Your task to perform on an android device: Go to CNN.com Image 0: 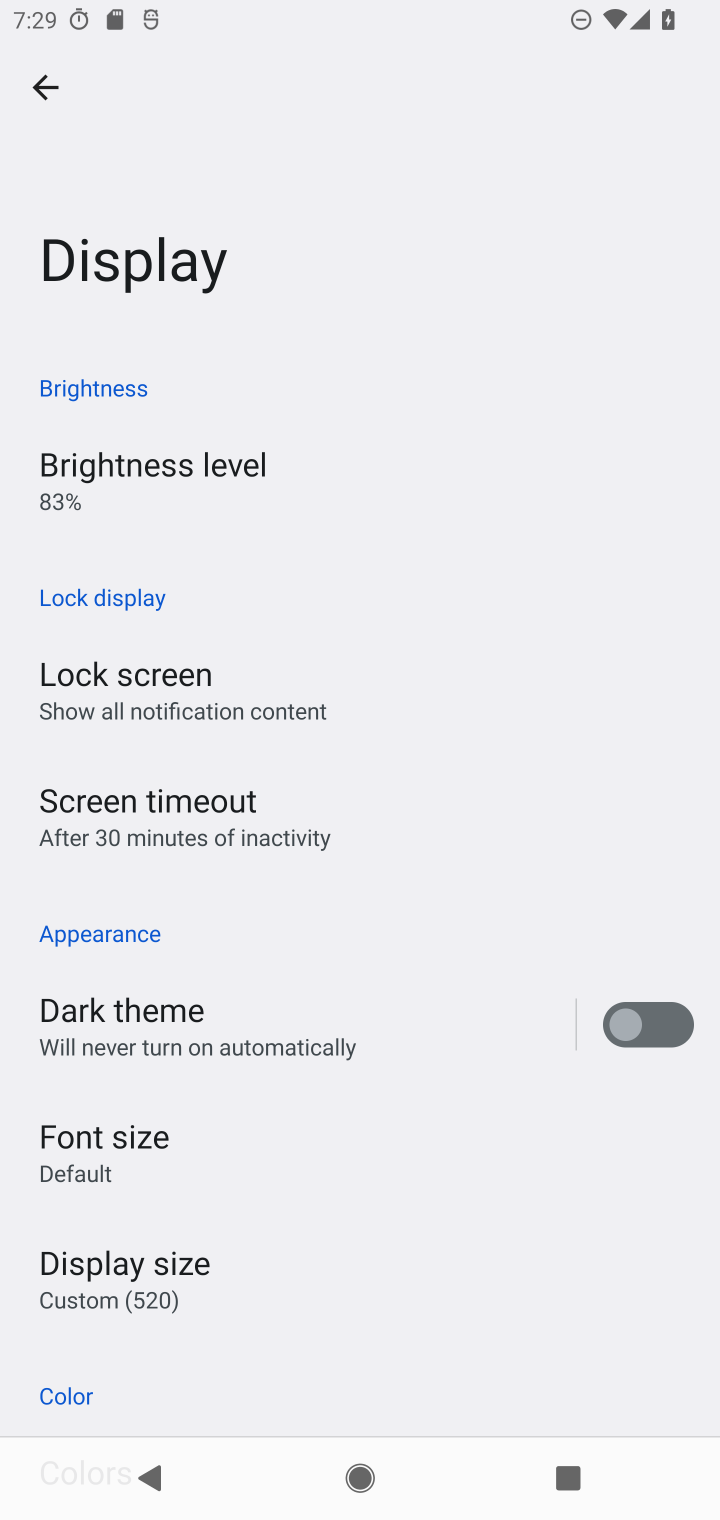
Step 0: press home button
Your task to perform on an android device: Go to CNN.com Image 1: 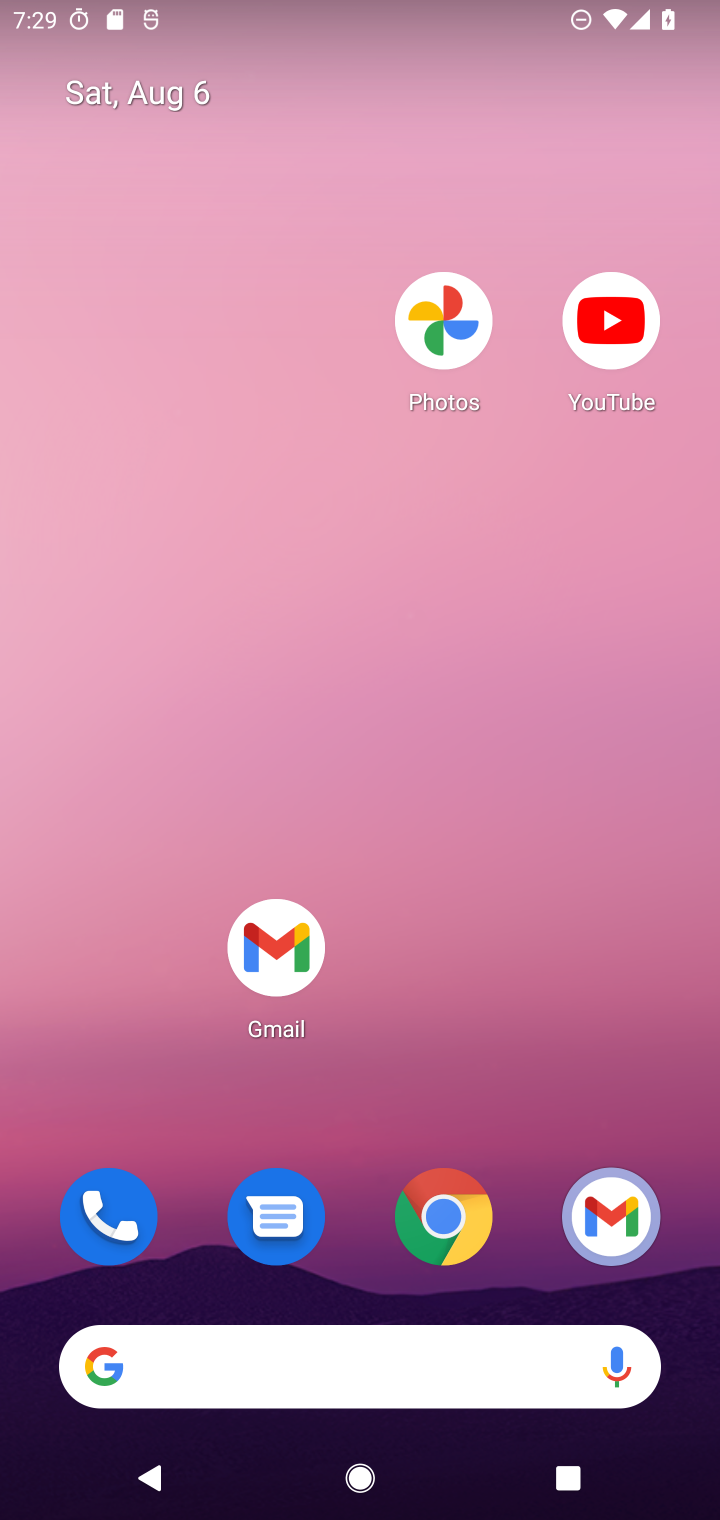
Step 1: drag from (518, 804) to (446, 4)
Your task to perform on an android device: Go to CNN.com Image 2: 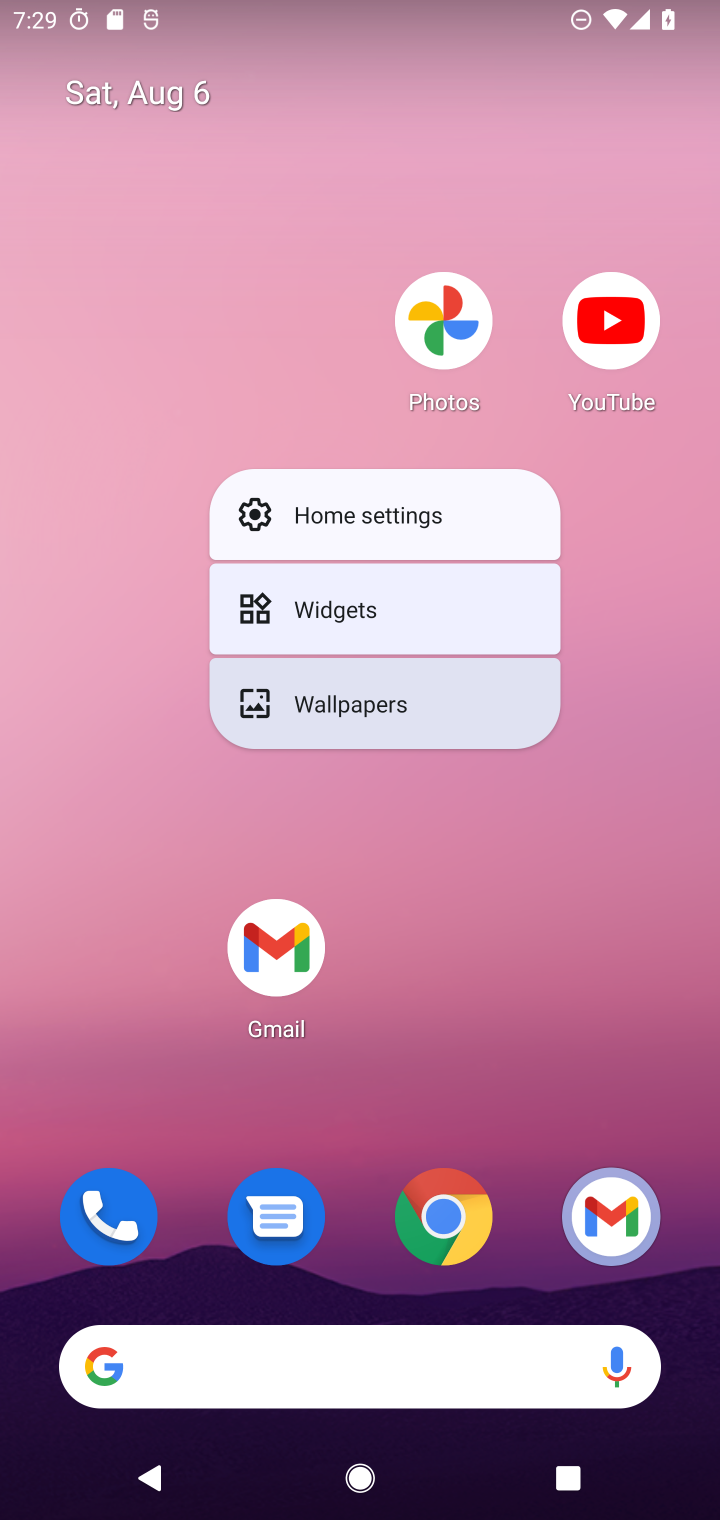
Step 2: click (619, 936)
Your task to perform on an android device: Go to CNN.com Image 3: 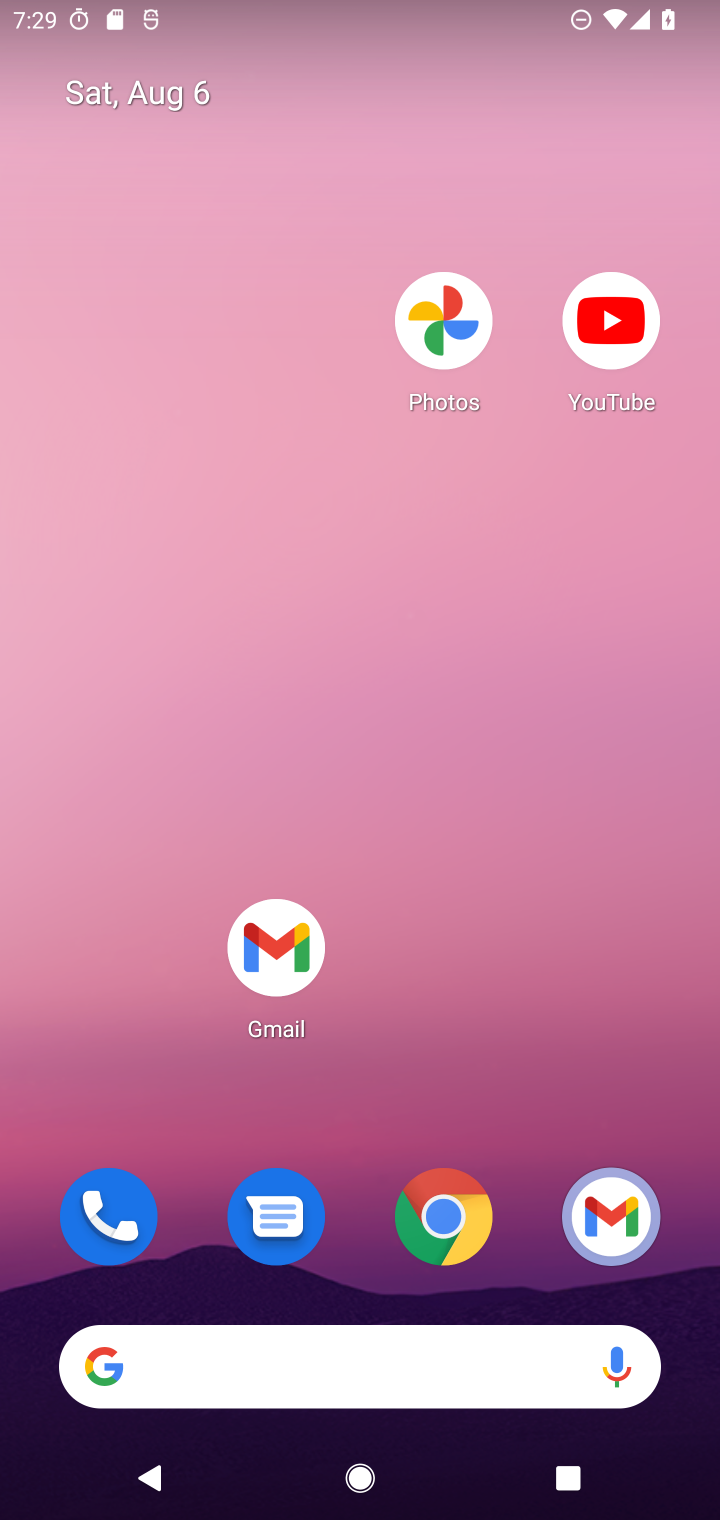
Step 3: drag from (506, 416) to (476, 108)
Your task to perform on an android device: Go to CNN.com Image 4: 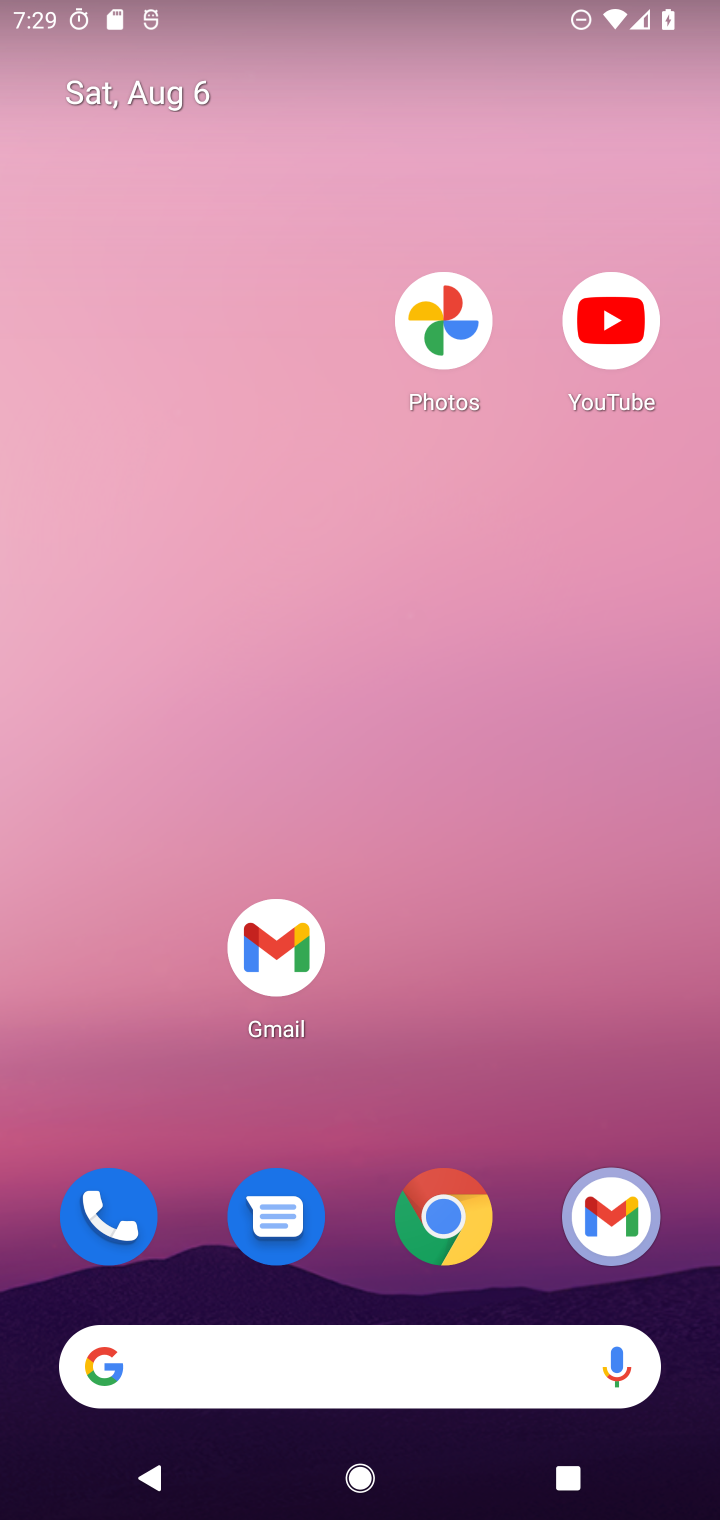
Step 4: drag from (513, 679) to (521, 241)
Your task to perform on an android device: Go to CNN.com Image 5: 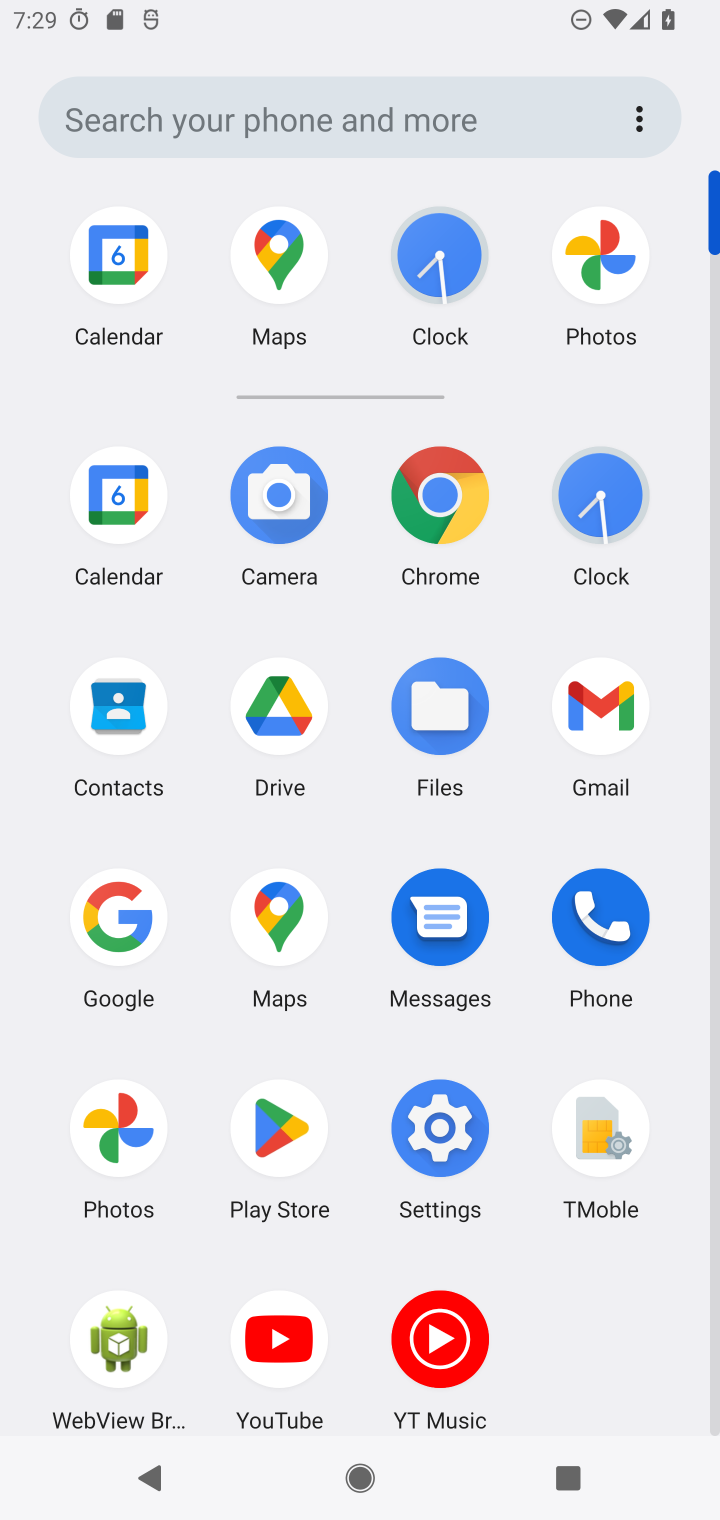
Step 5: click (429, 521)
Your task to perform on an android device: Go to CNN.com Image 6: 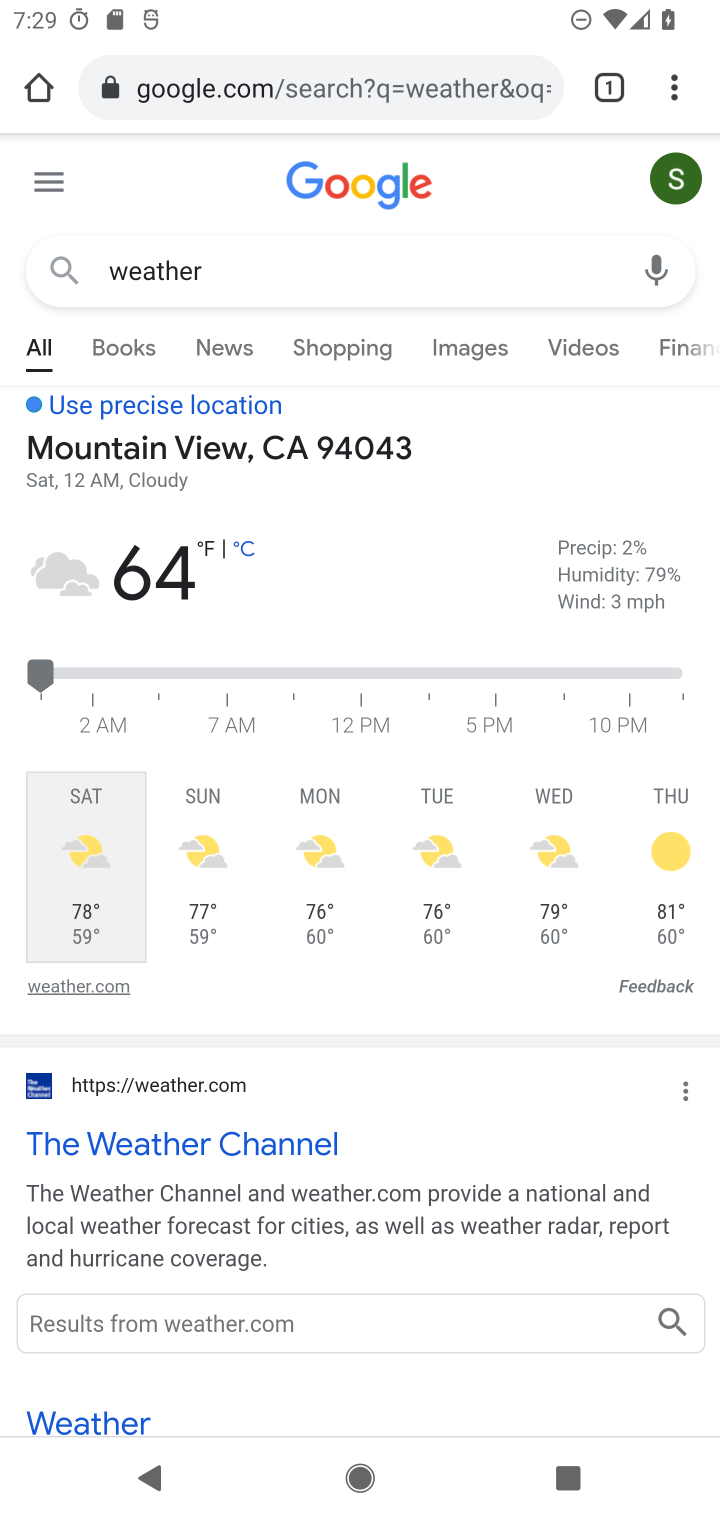
Step 6: click (401, 84)
Your task to perform on an android device: Go to CNN.com Image 7: 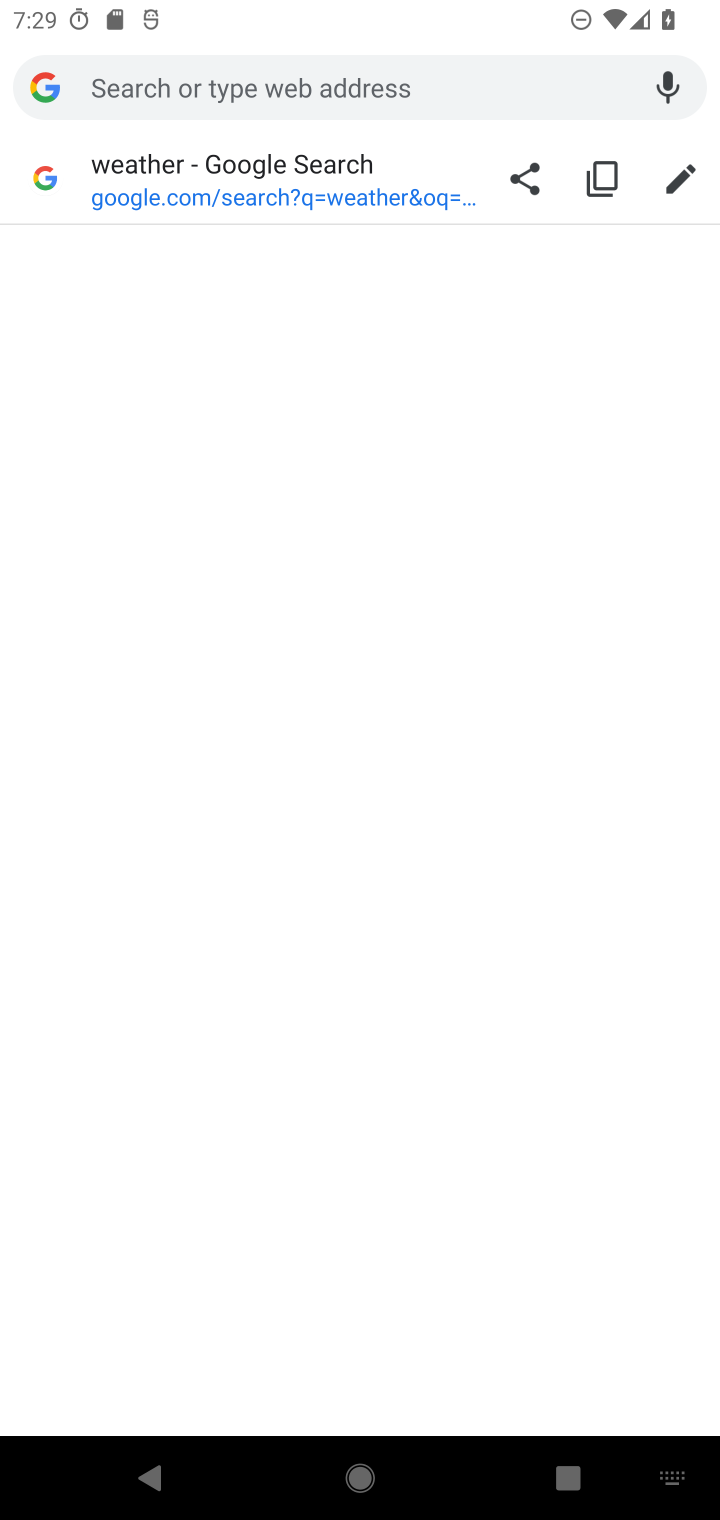
Step 7: type "cnn.com"
Your task to perform on an android device: Go to CNN.com Image 8: 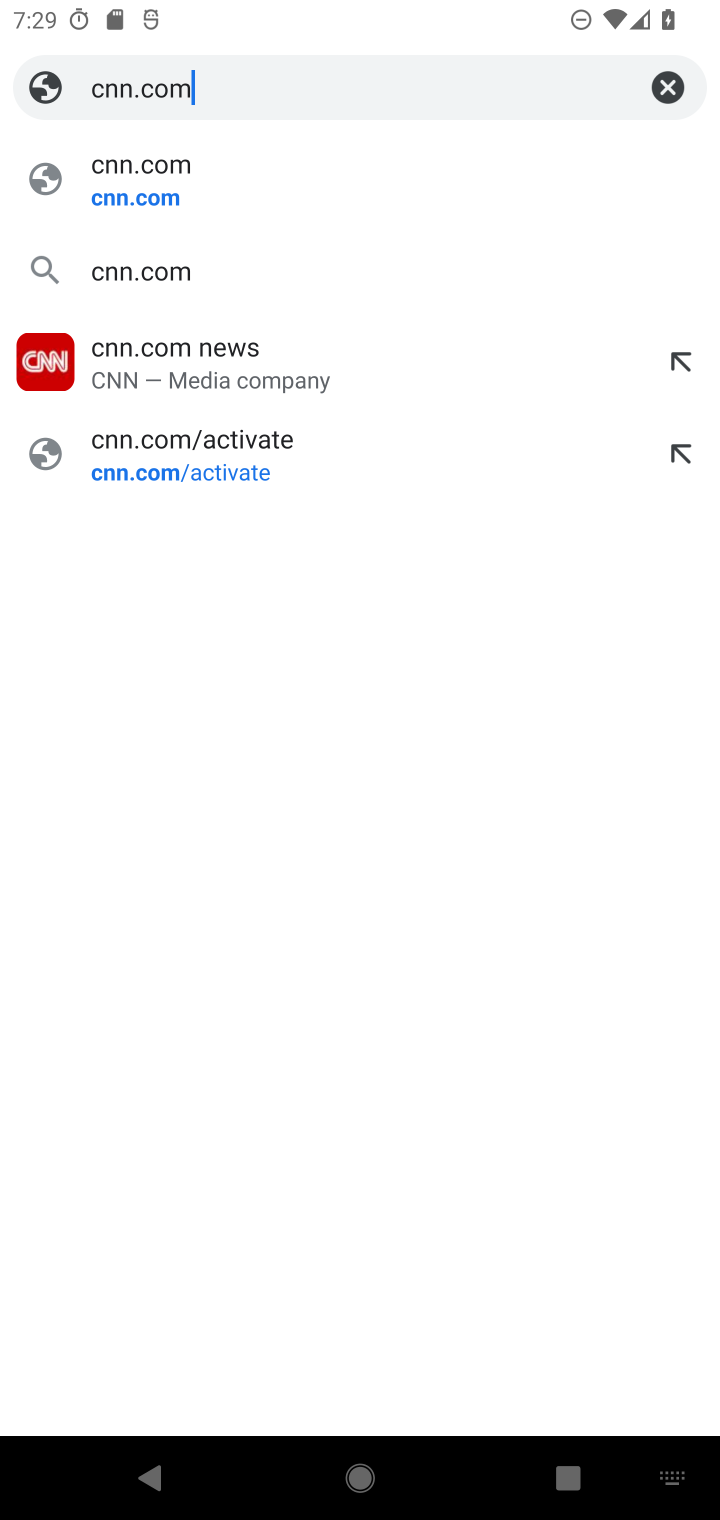
Step 8: click (143, 189)
Your task to perform on an android device: Go to CNN.com Image 9: 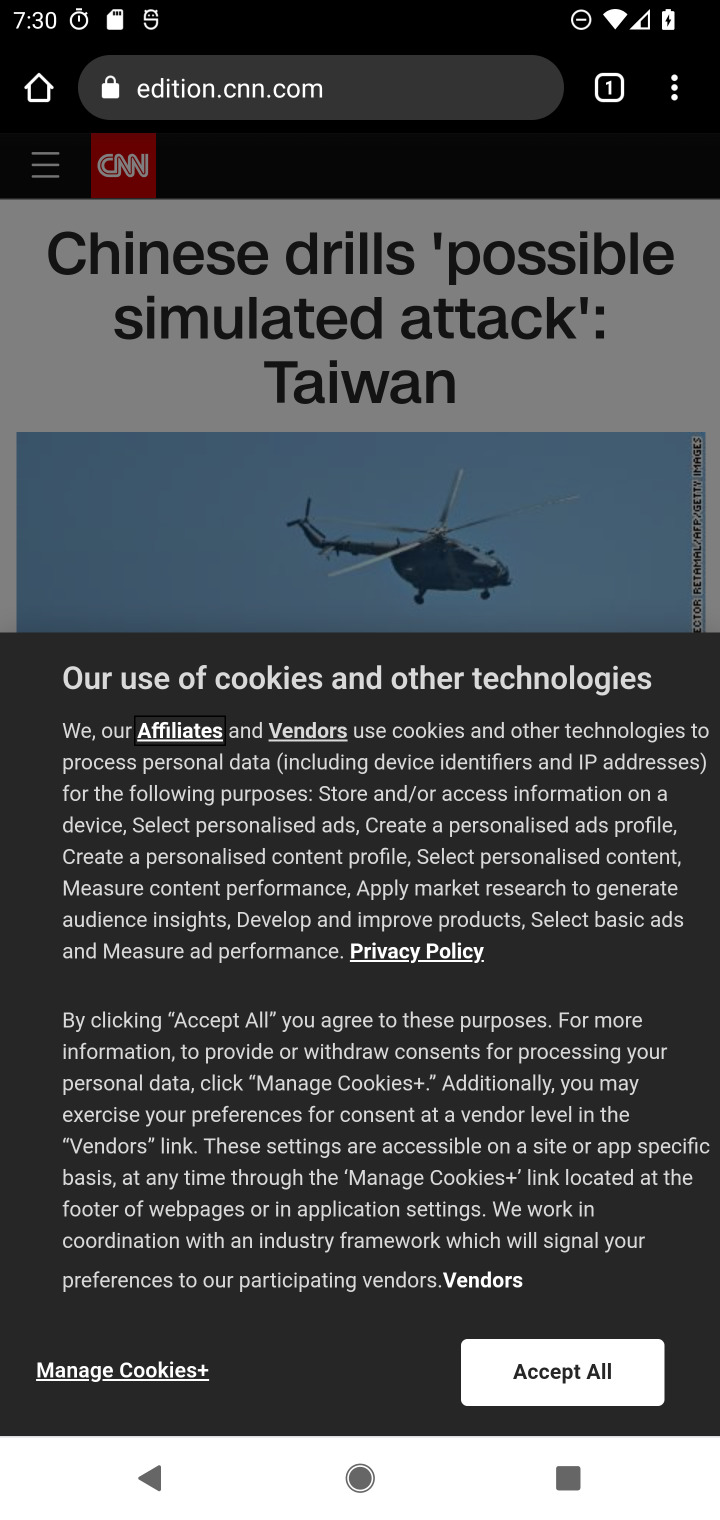
Step 9: task complete